Your task to perform on an android device: Open Google Maps Image 0: 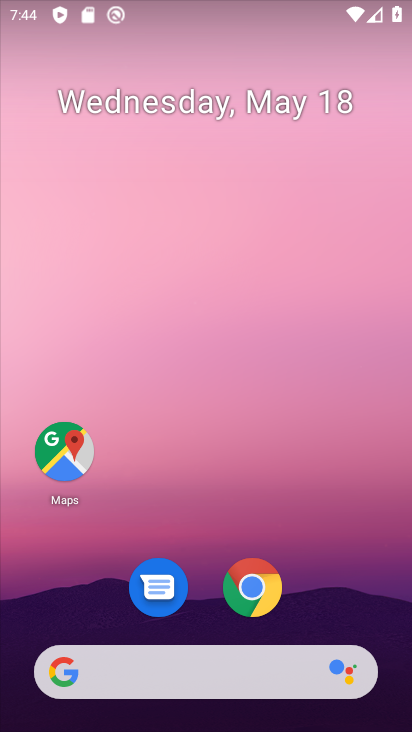
Step 0: drag from (258, 507) to (289, 328)
Your task to perform on an android device: Open Google Maps Image 1: 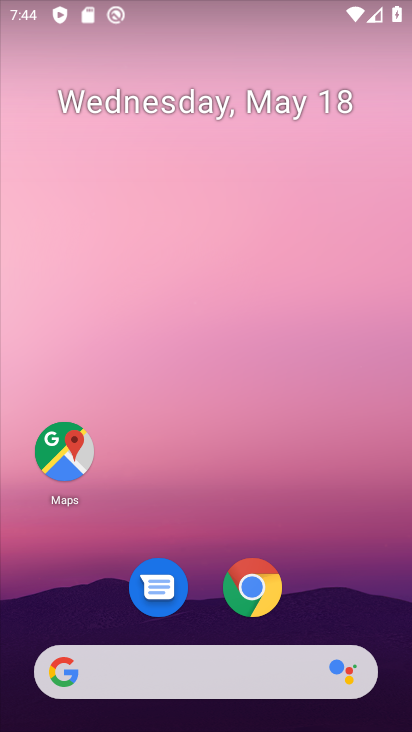
Step 1: drag from (223, 625) to (324, 87)
Your task to perform on an android device: Open Google Maps Image 2: 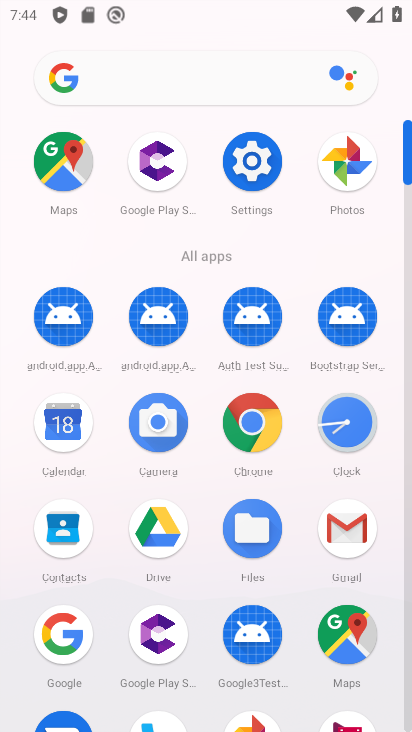
Step 2: drag from (246, 502) to (281, 235)
Your task to perform on an android device: Open Google Maps Image 3: 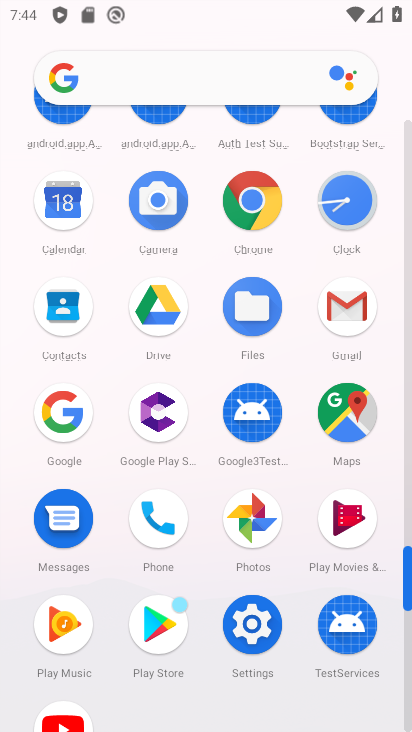
Step 3: click (343, 411)
Your task to perform on an android device: Open Google Maps Image 4: 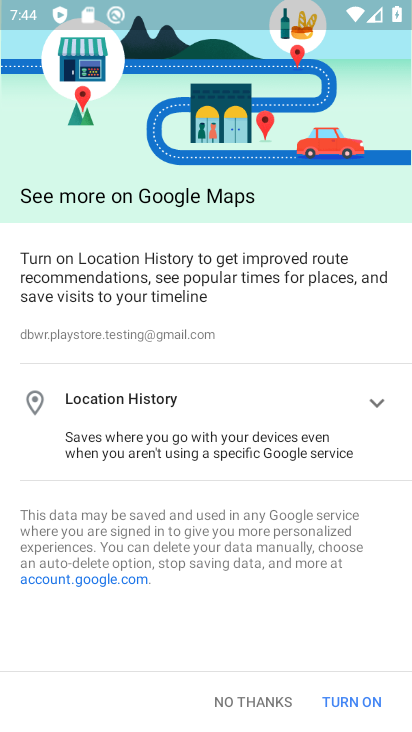
Step 4: click (359, 707)
Your task to perform on an android device: Open Google Maps Image 5: 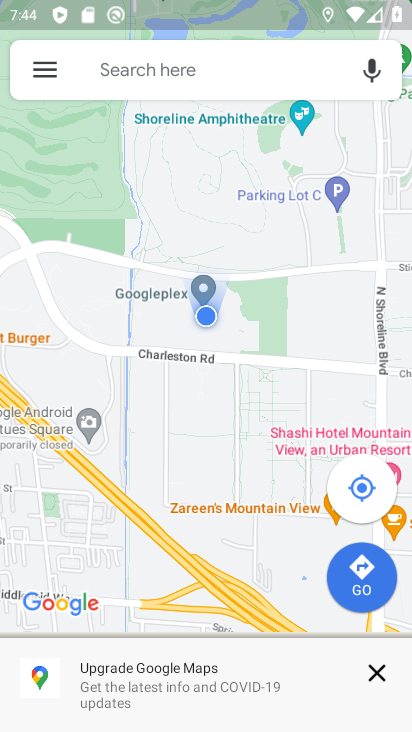
Step 5: task complete